Your task to perform on an android device: find snoozed emails in the gmail app Image 0: 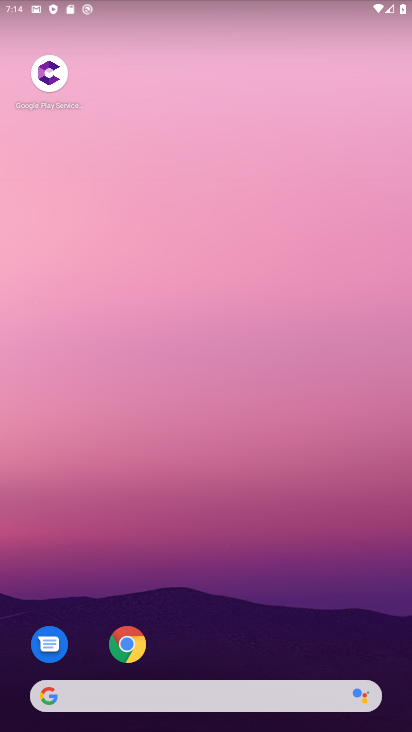
Step 0: drag from (208, 658) to (220, 90)
Your task to perform on an android device: find snoozed emails in the gmail app Image 1: 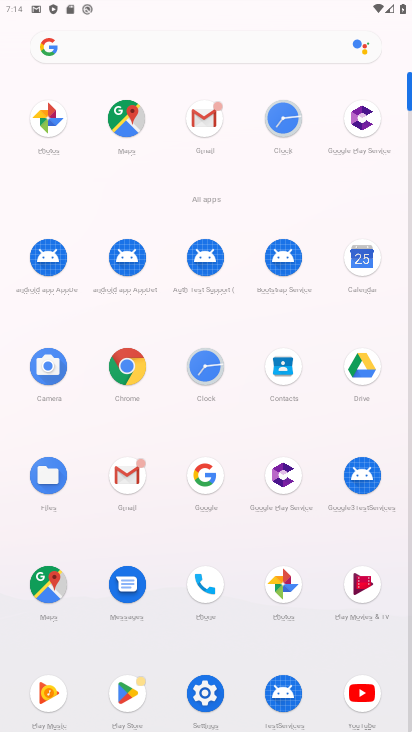
Step 1: click (202, 114)
Your task to perform on an android device: find snoozed emails in the gmail app Image 2: 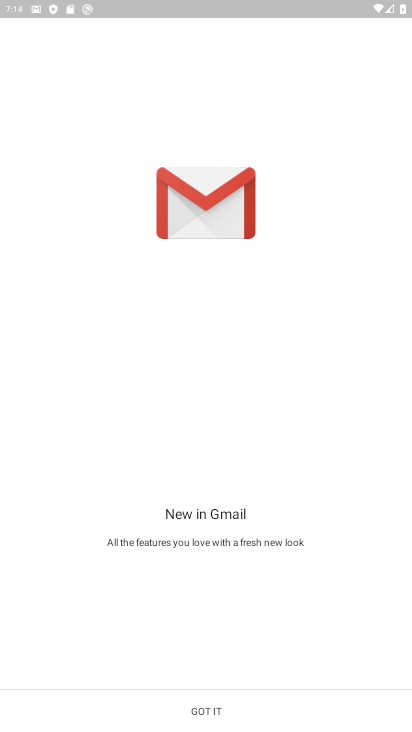
Step 2: click (209, 707)
Your task to perform on an android device: find snoozed emails in the gmail app Image 3: 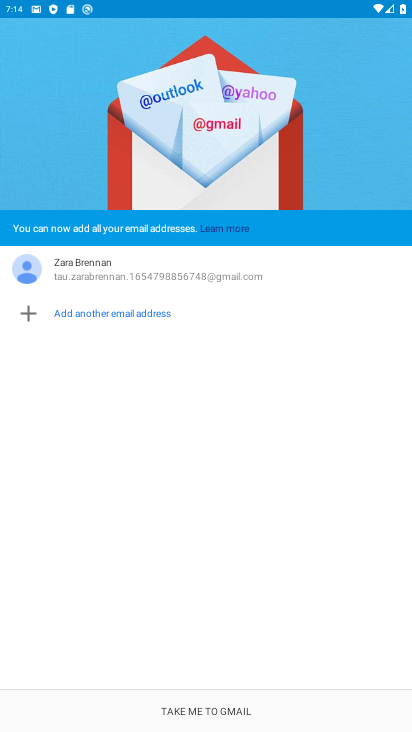
Step 3: click (210, 705)
Your task to perform on an android device: find snoozed emails in the gmail app Image 4: 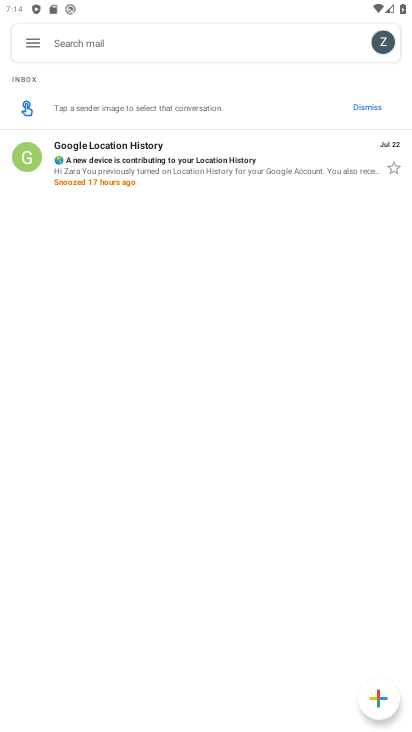
Step 4: click (27, 36)
Your task to perform on an android device: find snoozed emails in the gmail app Image 5: 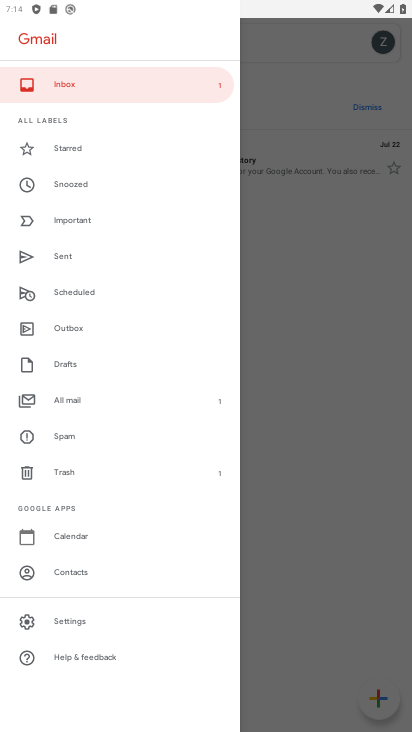
Step 5: click (82, 178)
Your task to perform on an android device: find snoozed emails in the gmail app Image 6: 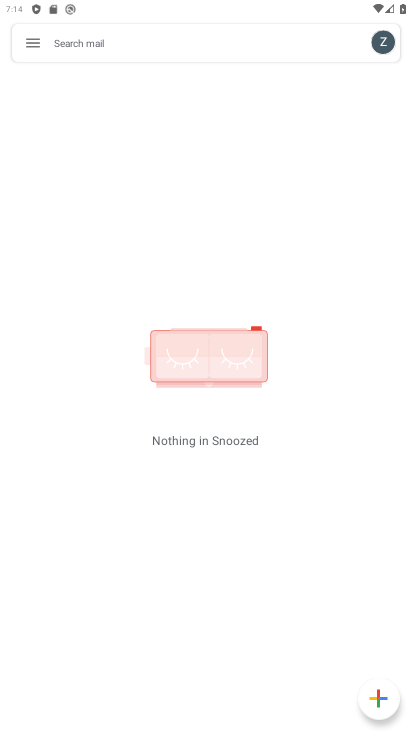
Step 6: task complete